Your task to perform on an android device: toggle javascript in the chrome app Image 0: 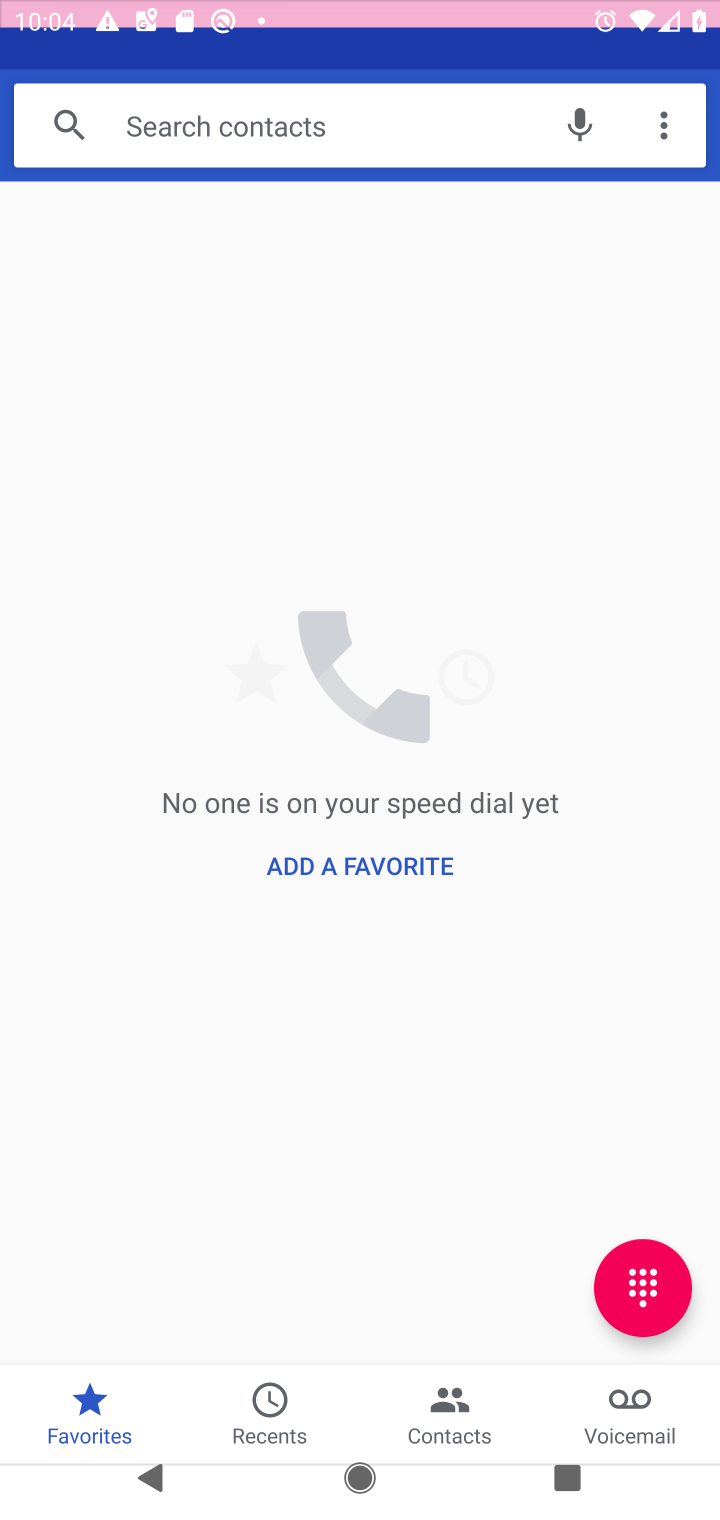
Step 0: press home button
Your task to perform on an android device: toggle javascript in the chrome app Image 1: 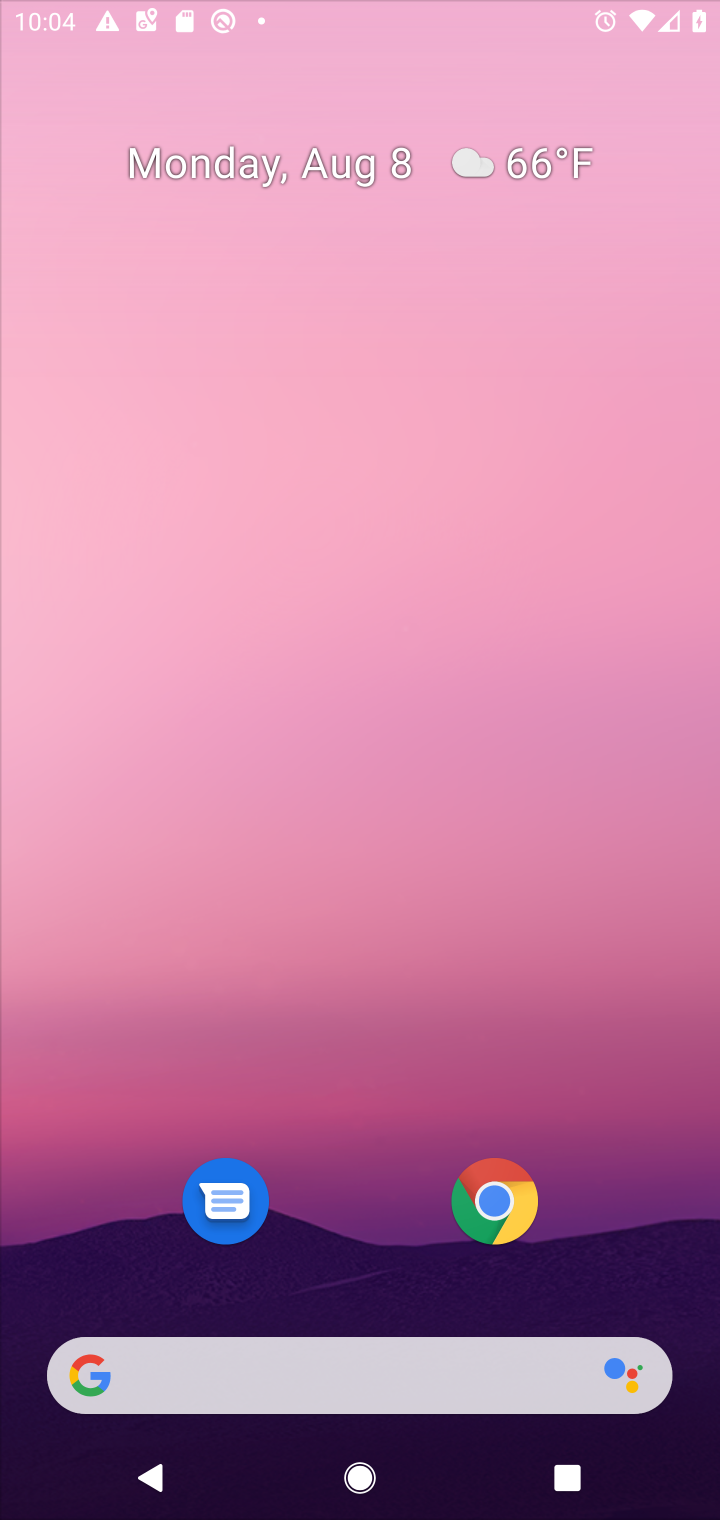
Step 1: press home button
Your task to perform on an android device: toggle javascript in the chrome app Image 2: 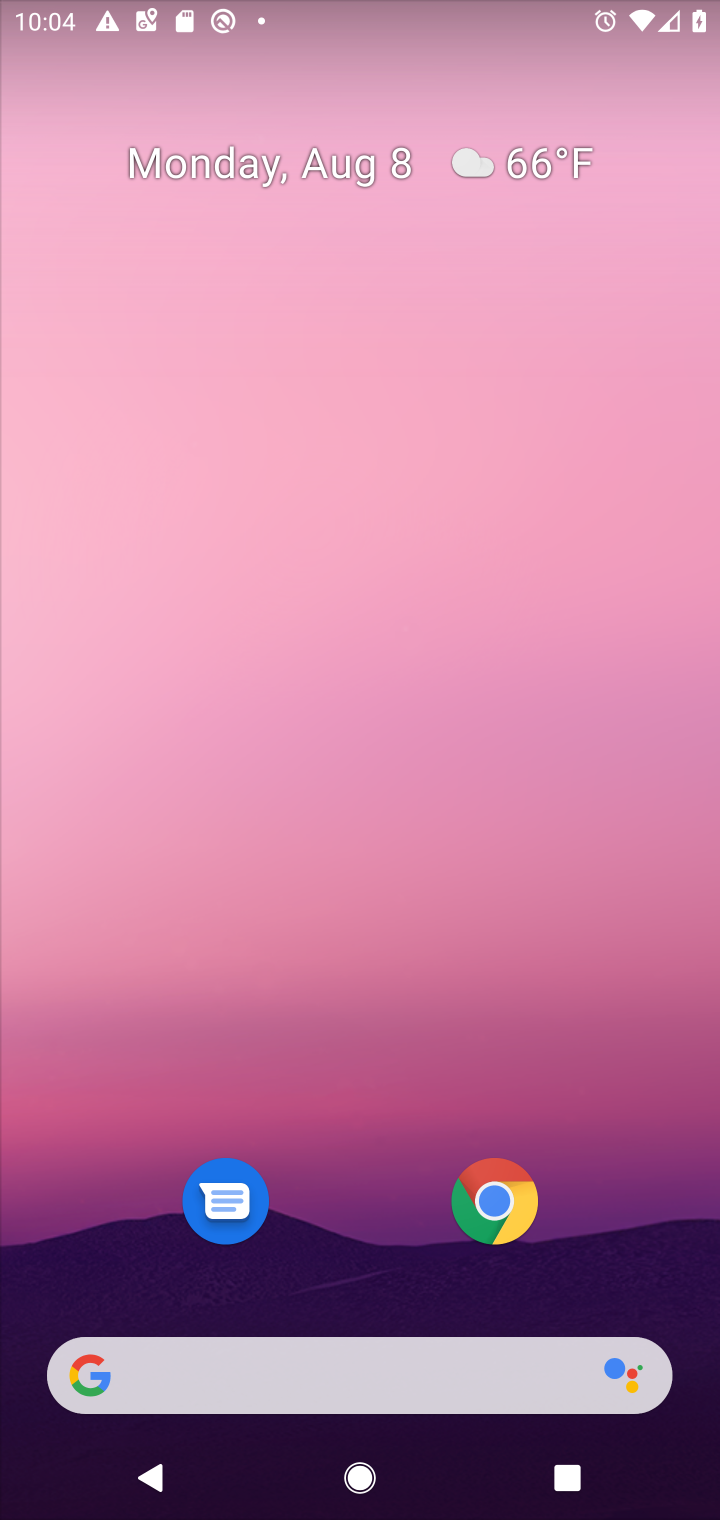
Step 2: drag from (595, 1174) to (593, 313)
Your task to perform on an android device: toggle javascript in the chrome app Image 3: 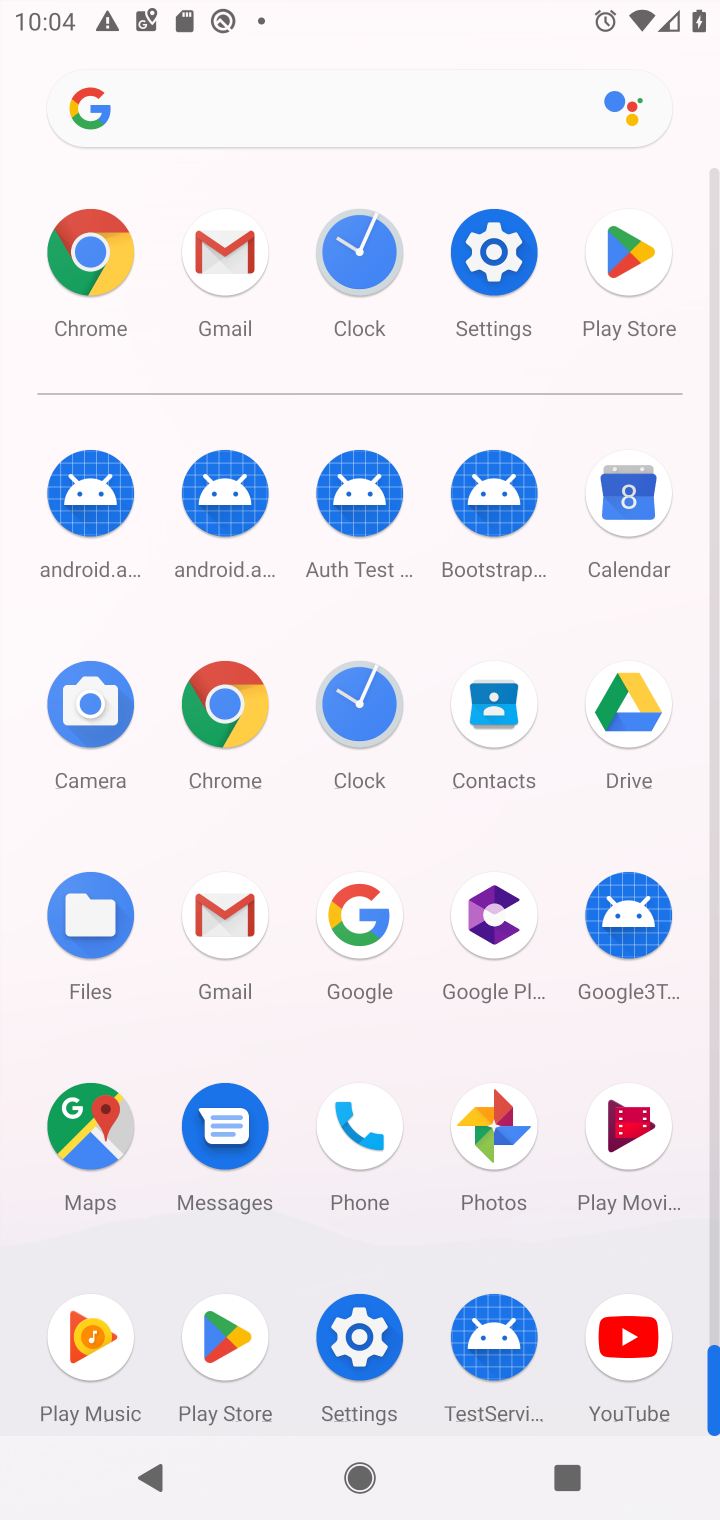
Step 3: click (216, 707)
Your task to perform on an android device: toggle javascript in the chrome app Image 4: 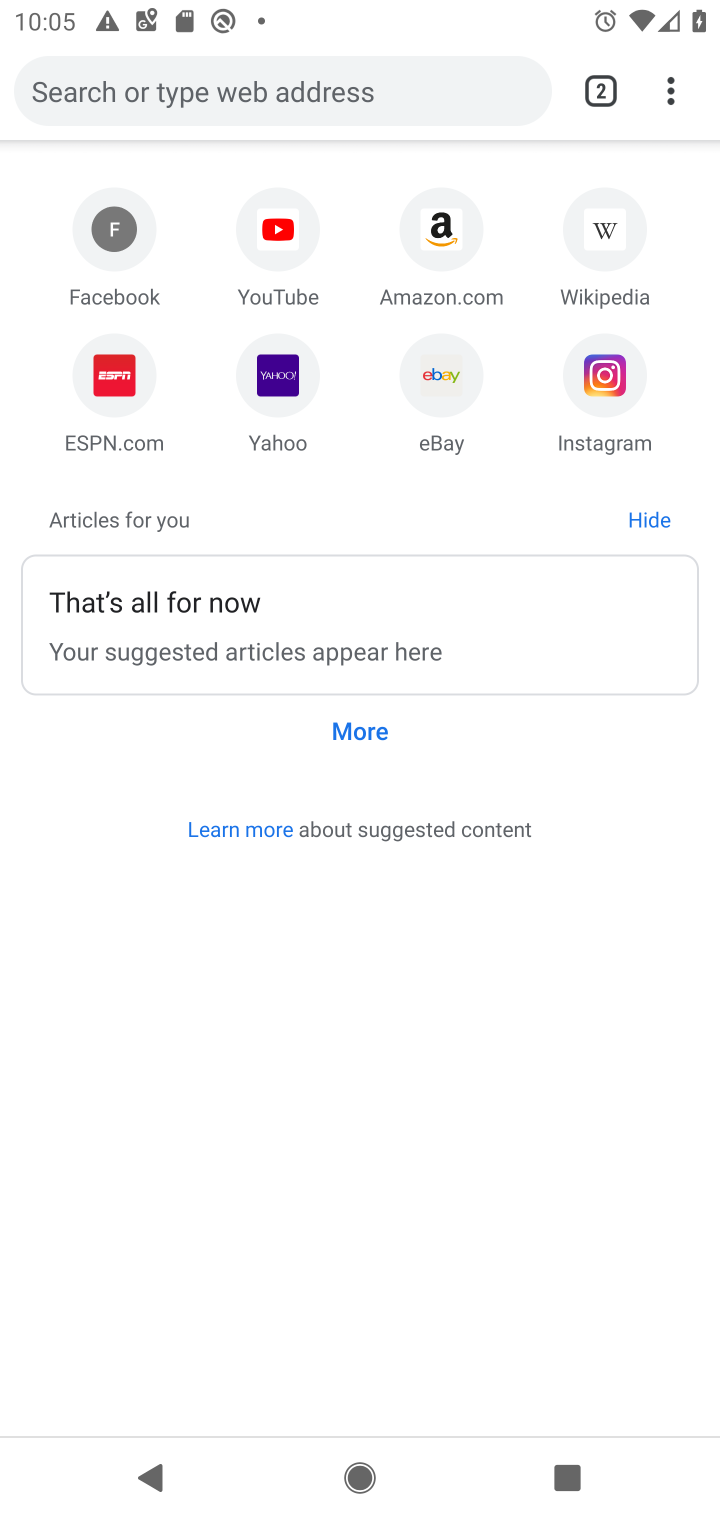
Step 4: click (673, 98)
Your task to perform on an android device: toggle javascript in the chrome app Image 5: 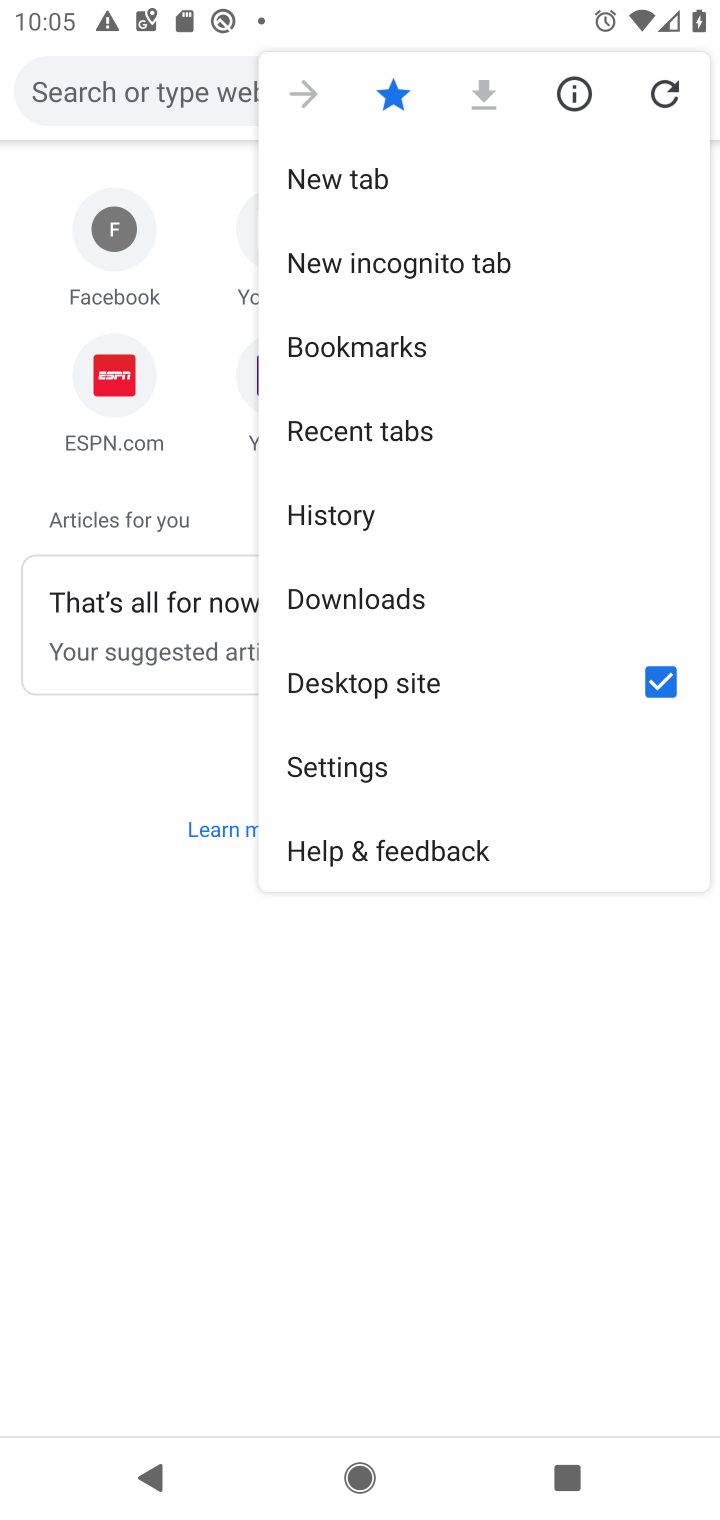
Step 5: click (337, 778)
Your task to perform on an android device: toggle javascript in the chrome app Image 6: 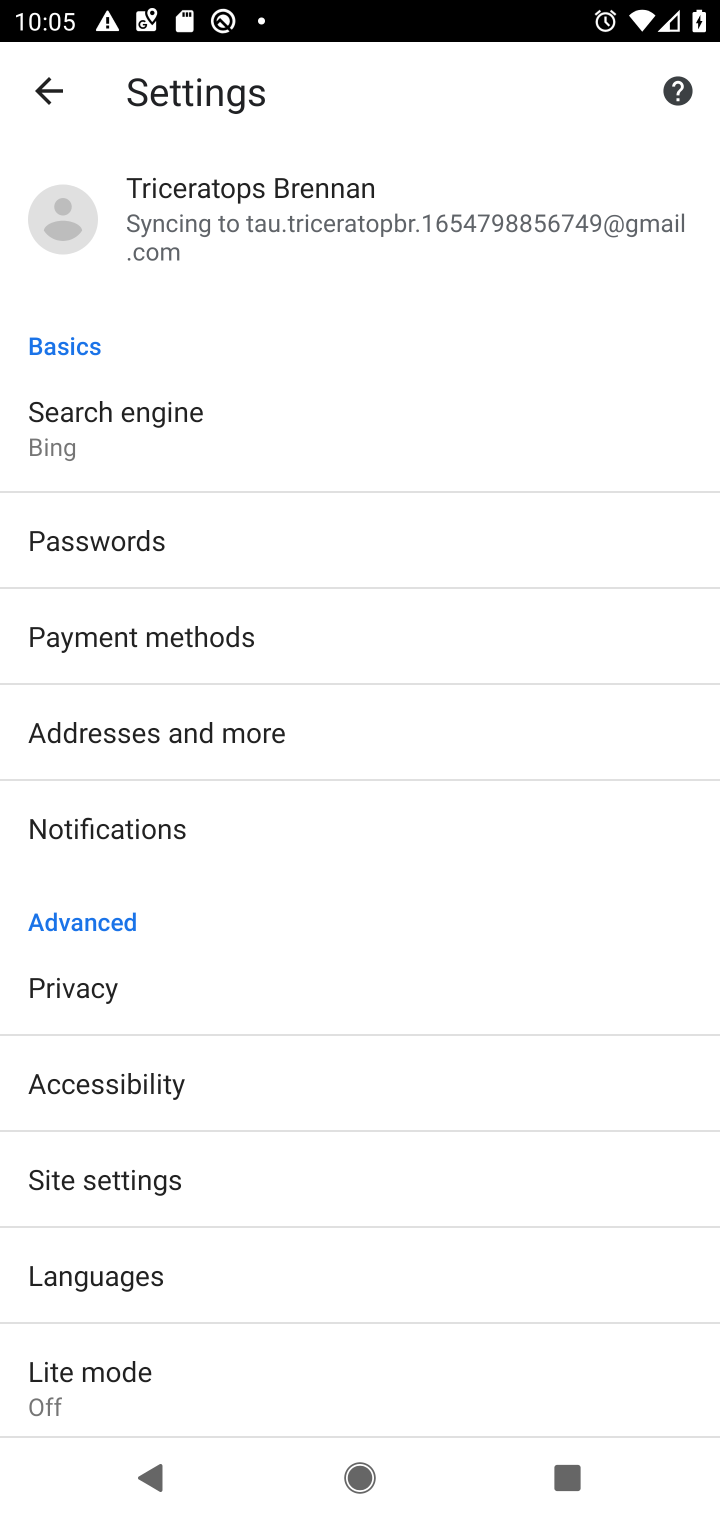
Step 6: click (240, 1167)
Your task to perform on an android device: toggle javascript in the chrome app Image 7: 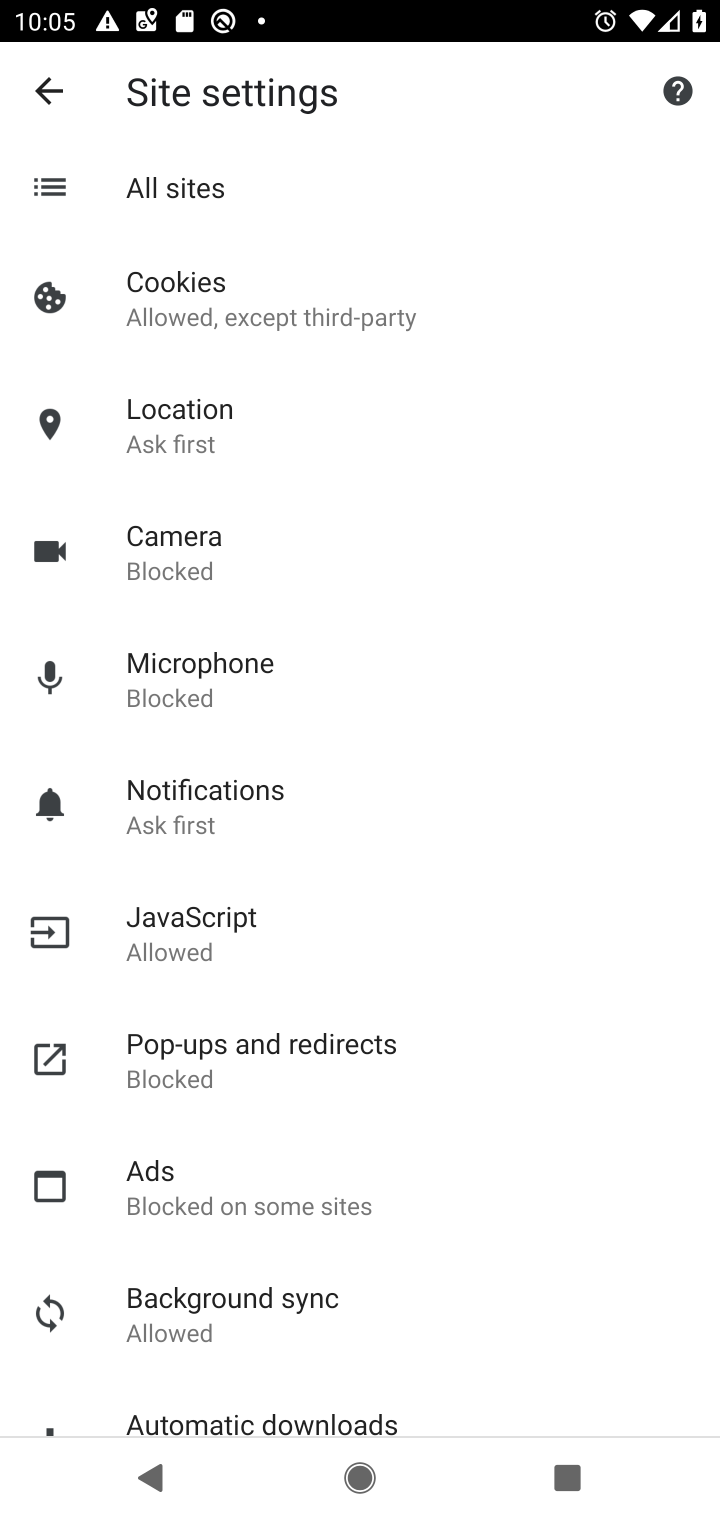
Step 7: click (220, 923)
Your task to perform on an android device: toggle javascript in the chrome app Image 8: 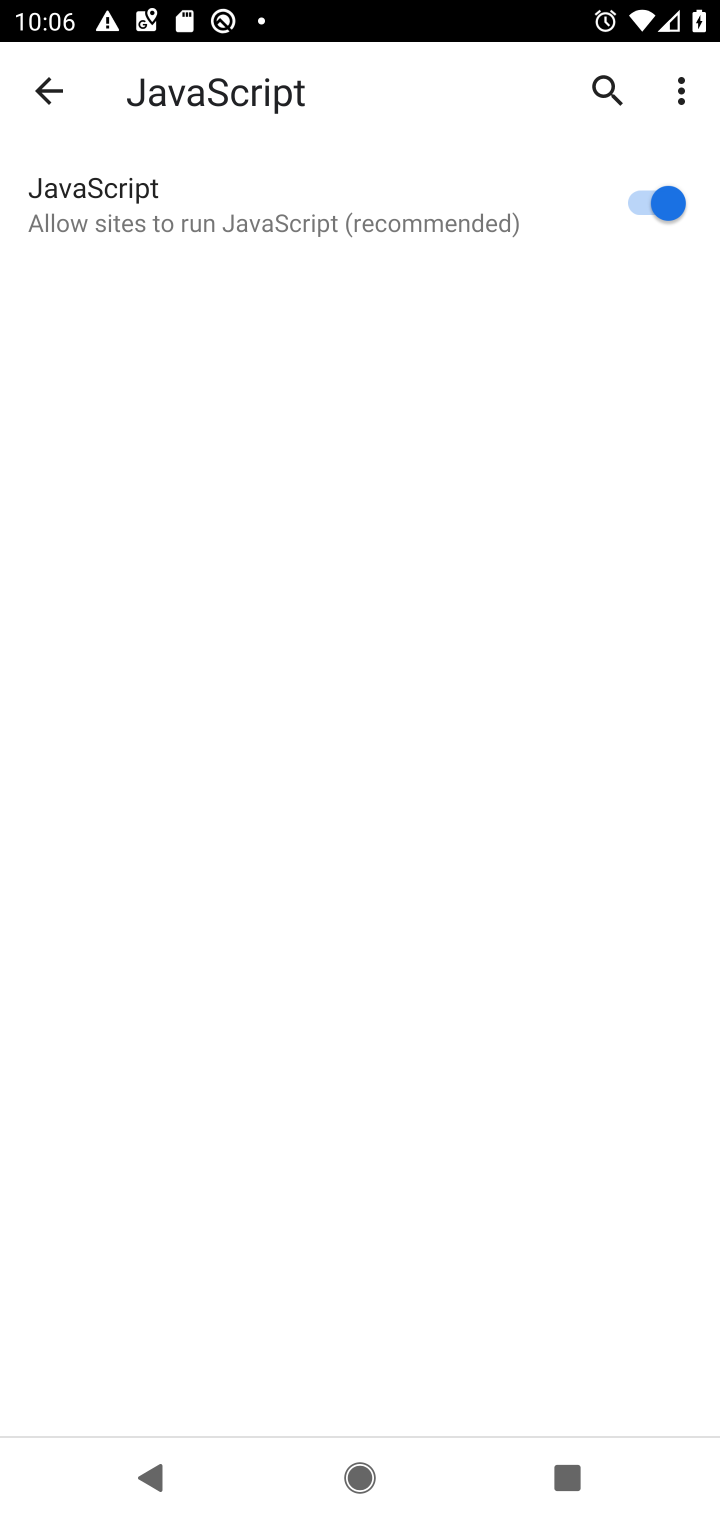
Step 8: task complete